Your task to perform on an android device: turn off data saver in the chrome app Image 0: 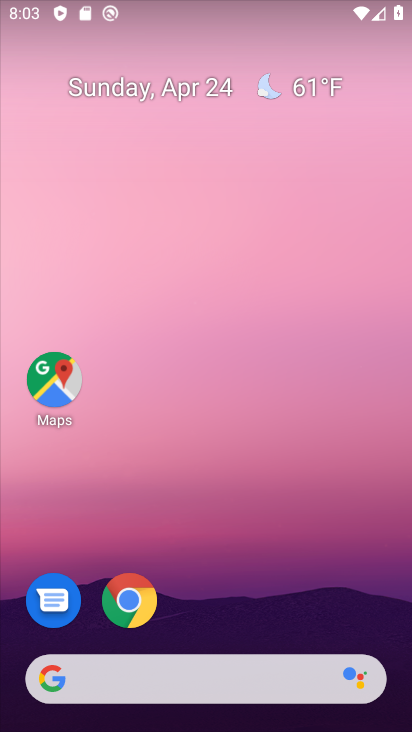
Step 0: click (129, 601)
Your task to perform on an android device: turn off data saver in the chrome app Image 1: 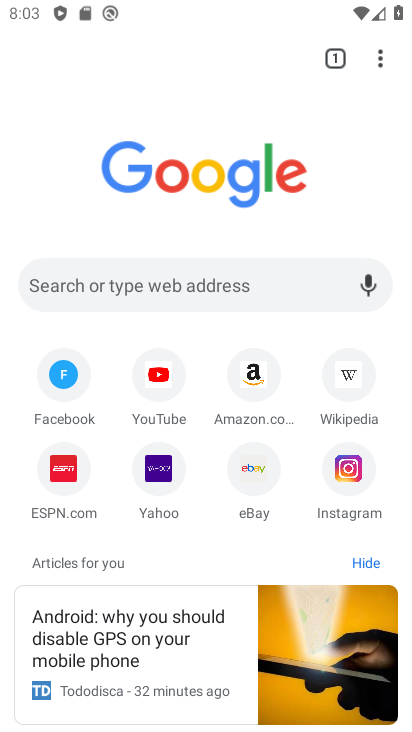
Step 1: drag from (380, 59) to (208, 564)
Your task to perform on an android device: turn off data saver in the chrome app Image 2: 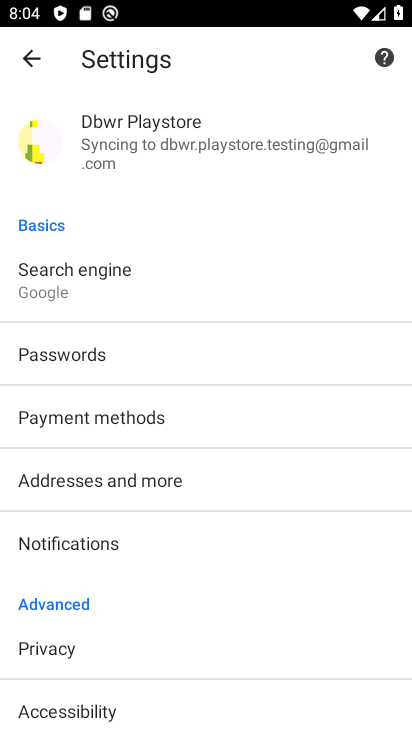
Step 2: drag from (177, 675) to (224, 300)
Your task to perform on an android device: turn off data saver in the chrome app Image 3: 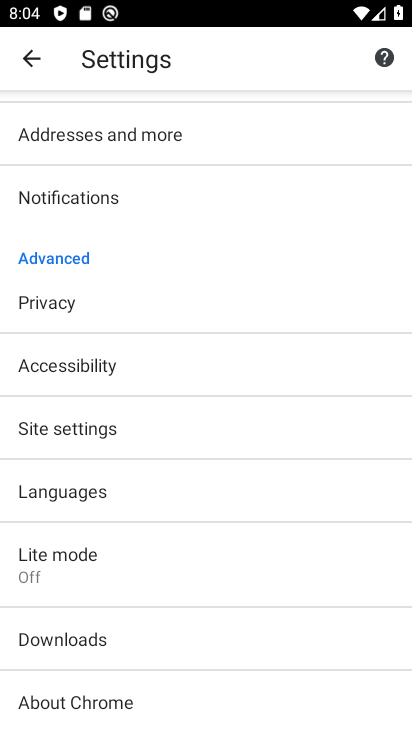
Step 3: click (87, 555)
Your task to perform on an android device: turn off data saver in the chrome app Image 4: 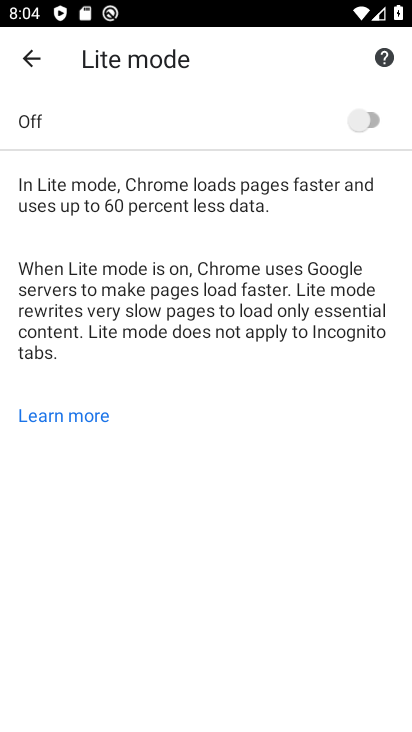
Step 4: task complete